Your task to perform on an android device: Add "bose soundlink mini" to the cart on ebay.com, then select checkout. Image 0: 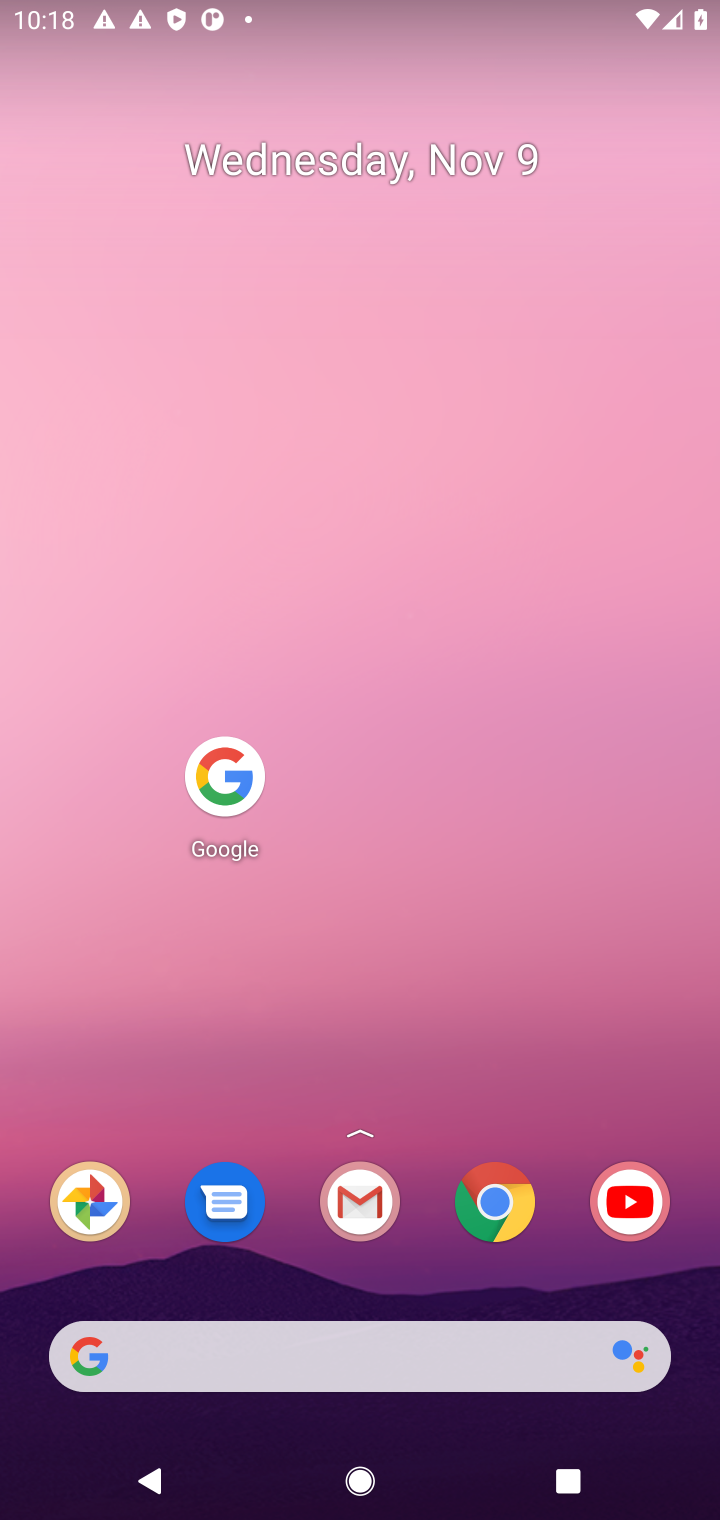
Step 0: press home button
Your task to perform on an android device: Add "bose soundlink mini" to the cart on ebay.com, then select checkout. Image 1: 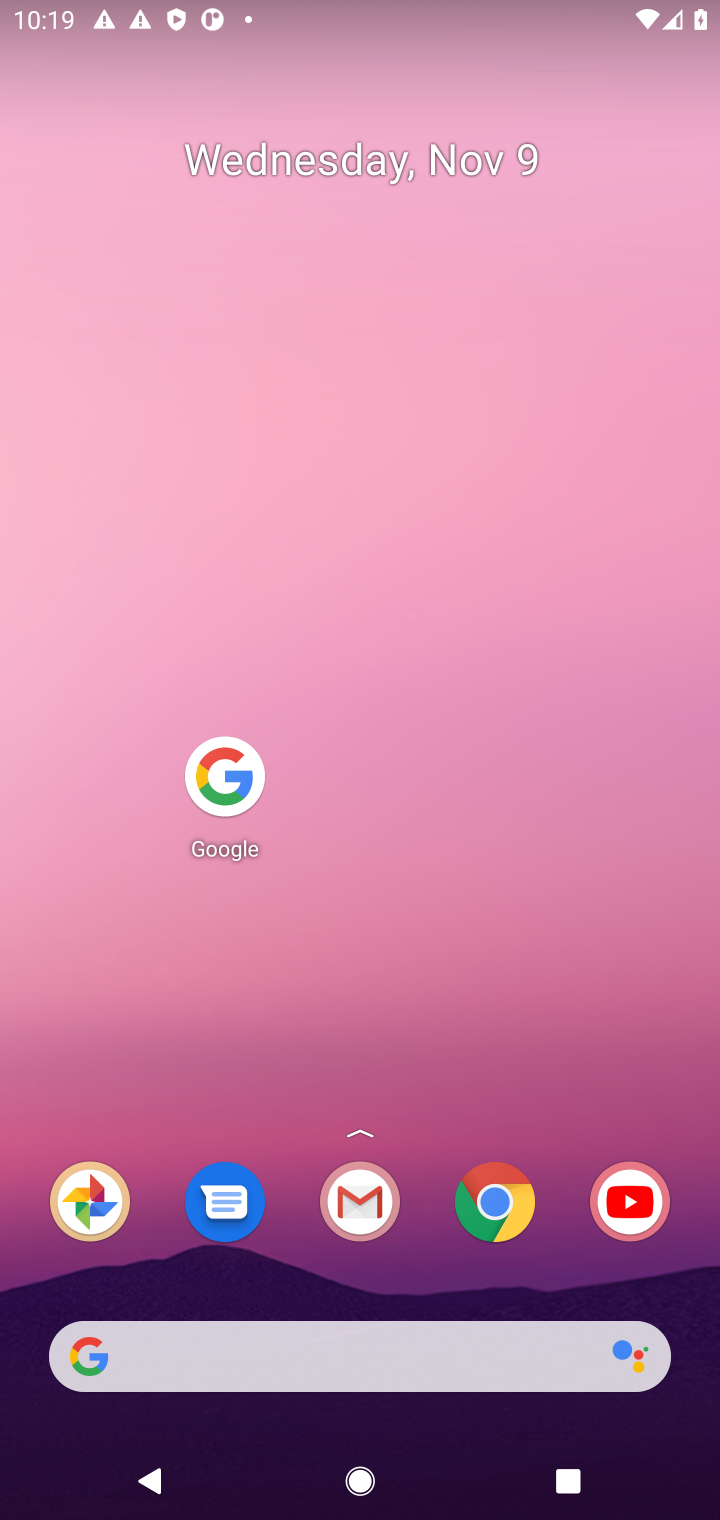
Step 1: click (232, 768)
Your task to perform on an android device: Add "bose soundlink mini" to the cart on ebay.com, then select checkout. Image 2: 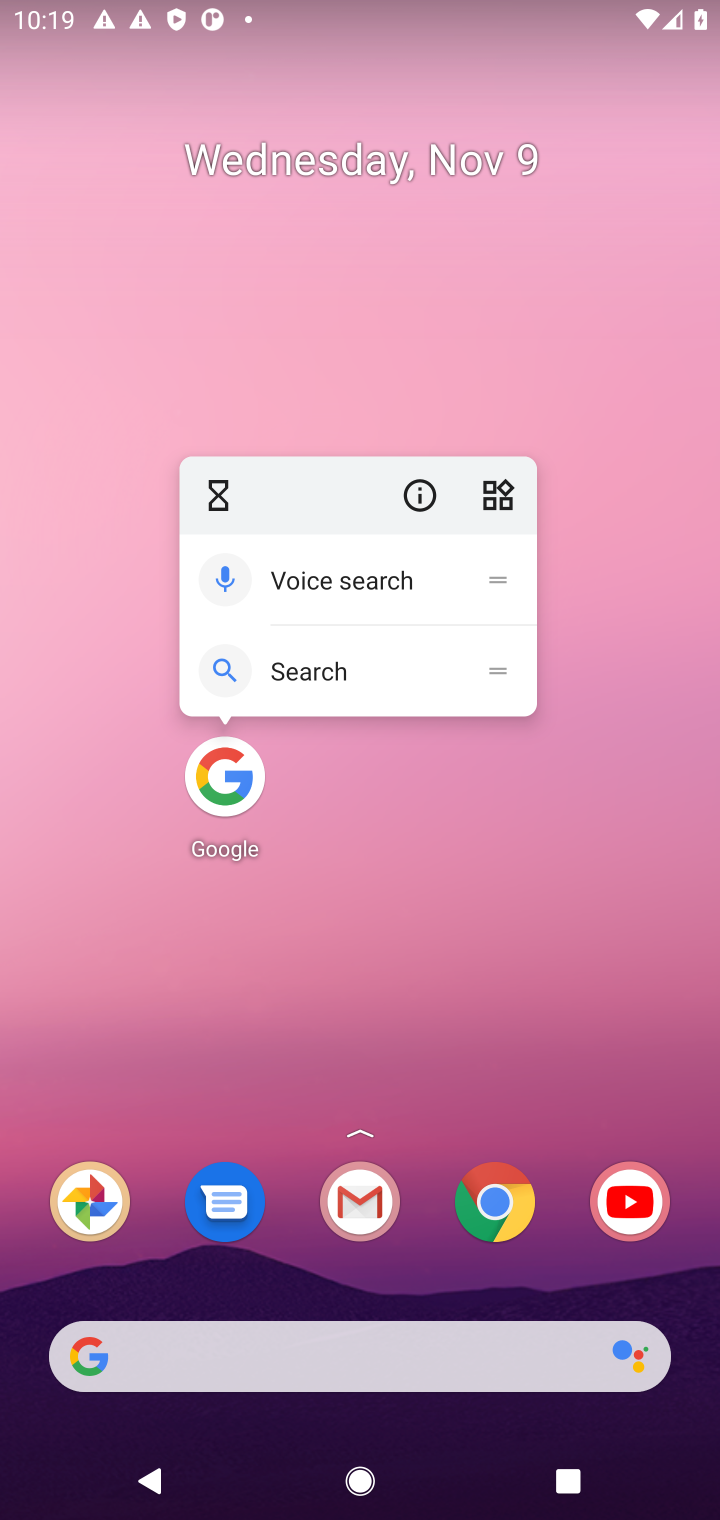
Step 2: click (234, 768)
Your task to perform on an android device: Add "bose soundlink mini" to the cart on ebay.com, then select checkout. Image 3: 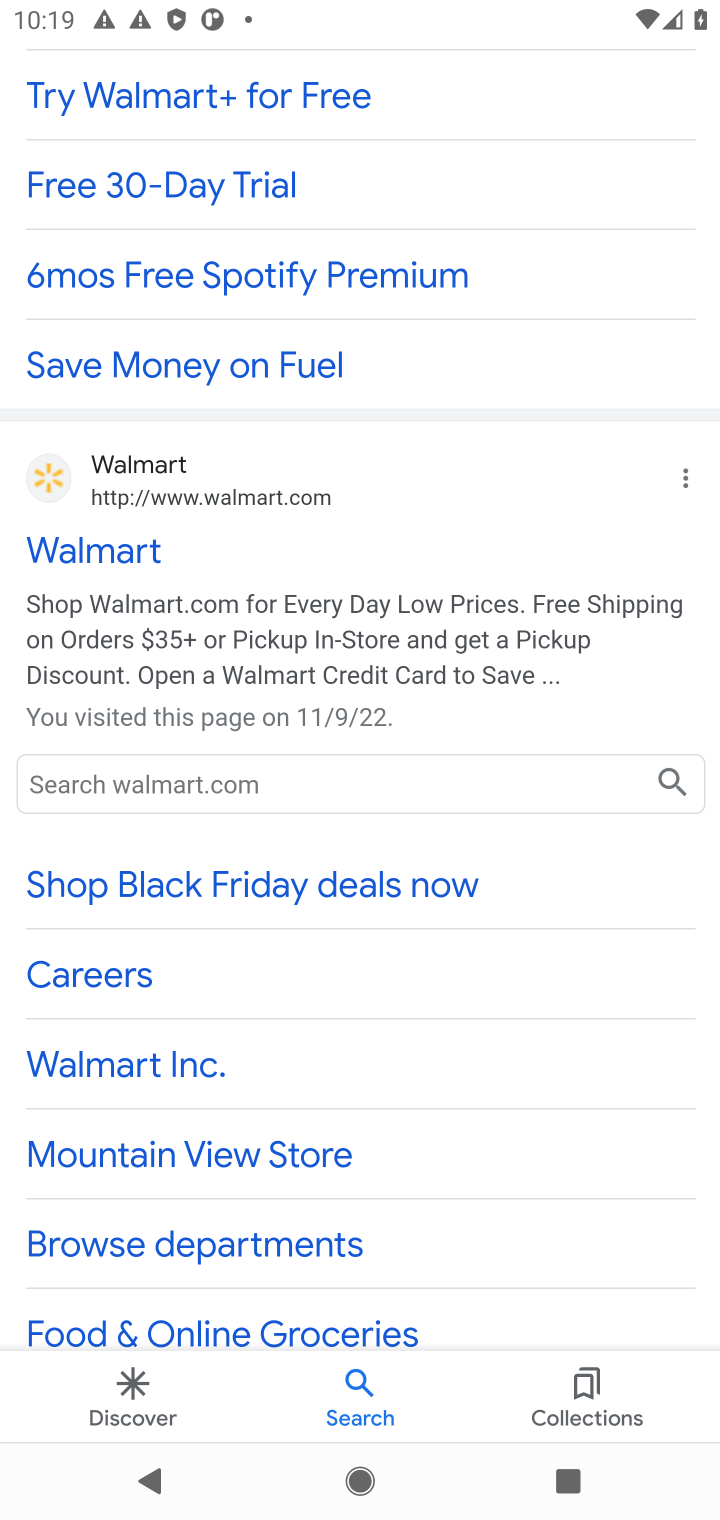
Step 3: drag from (504, 153) to (401, 1137)
Your task to perform on an android device: Add "bose soundlink mini" to the cart on ebay.com, then select checkout. Image 4: 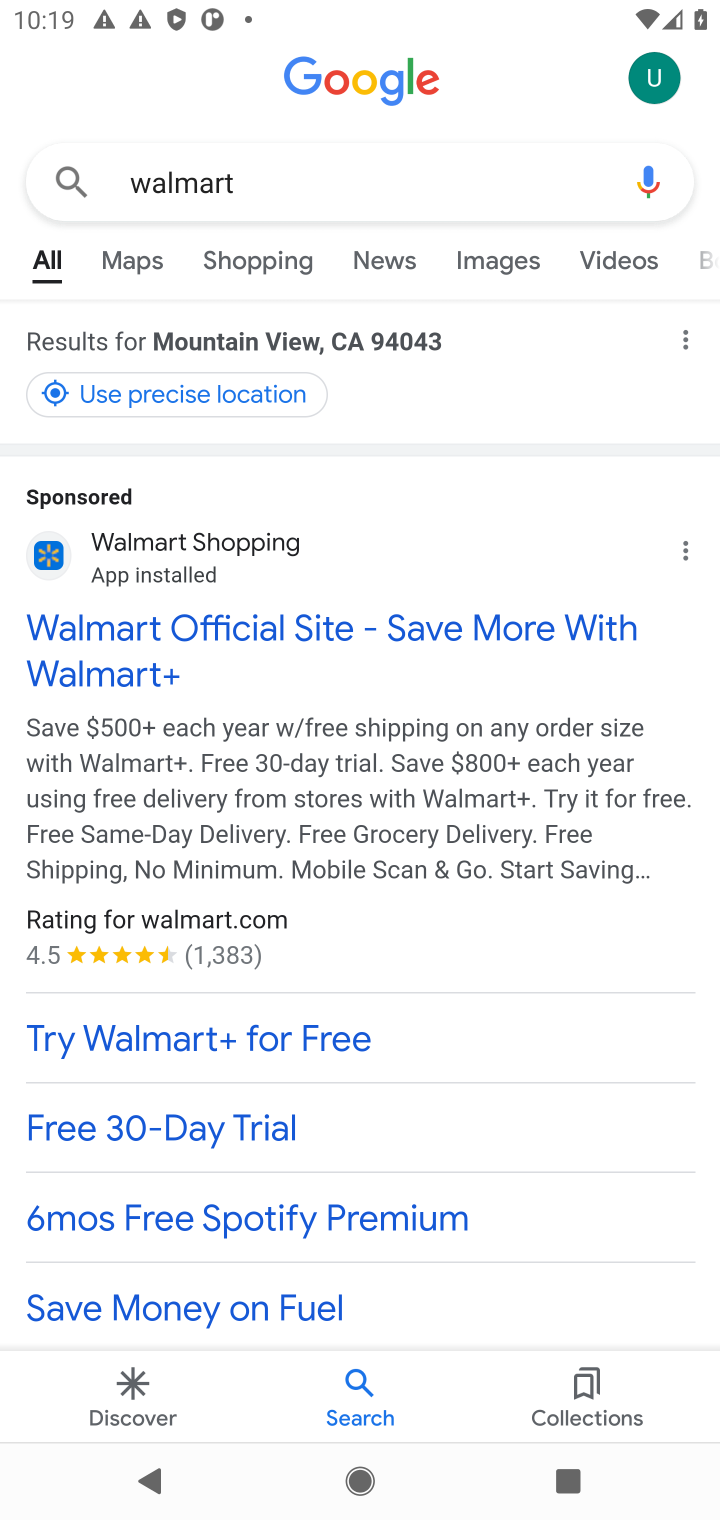
Step 4: click (310, 173)
Your task to perform on an android device: Add "bose soundlink mini" to the cart on ebay.com, then select checkout. Image 5: 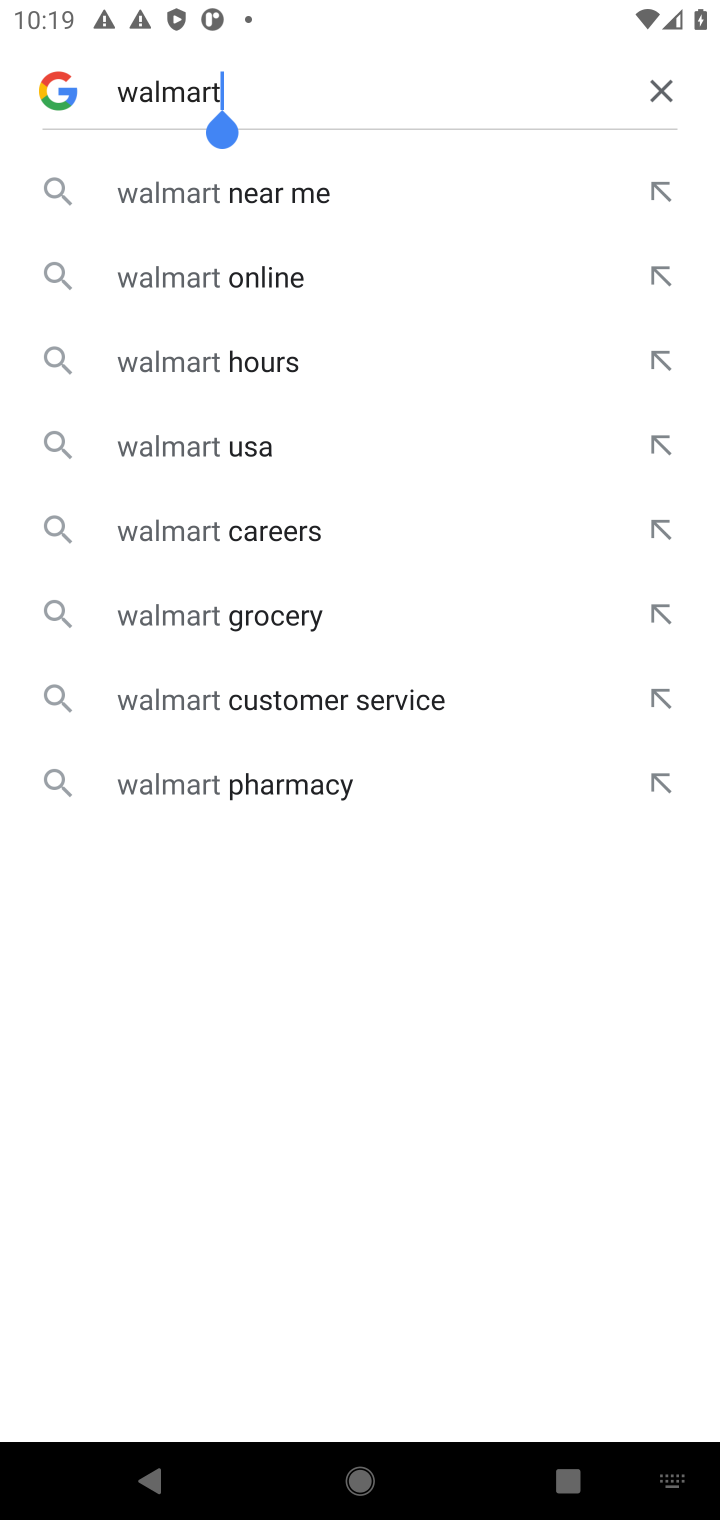
Step 5: click (654, 84)
Your task to perform on an android device: Add "bose soundlink mini" to the cart on ebay.com, then select checkout. Image 6: 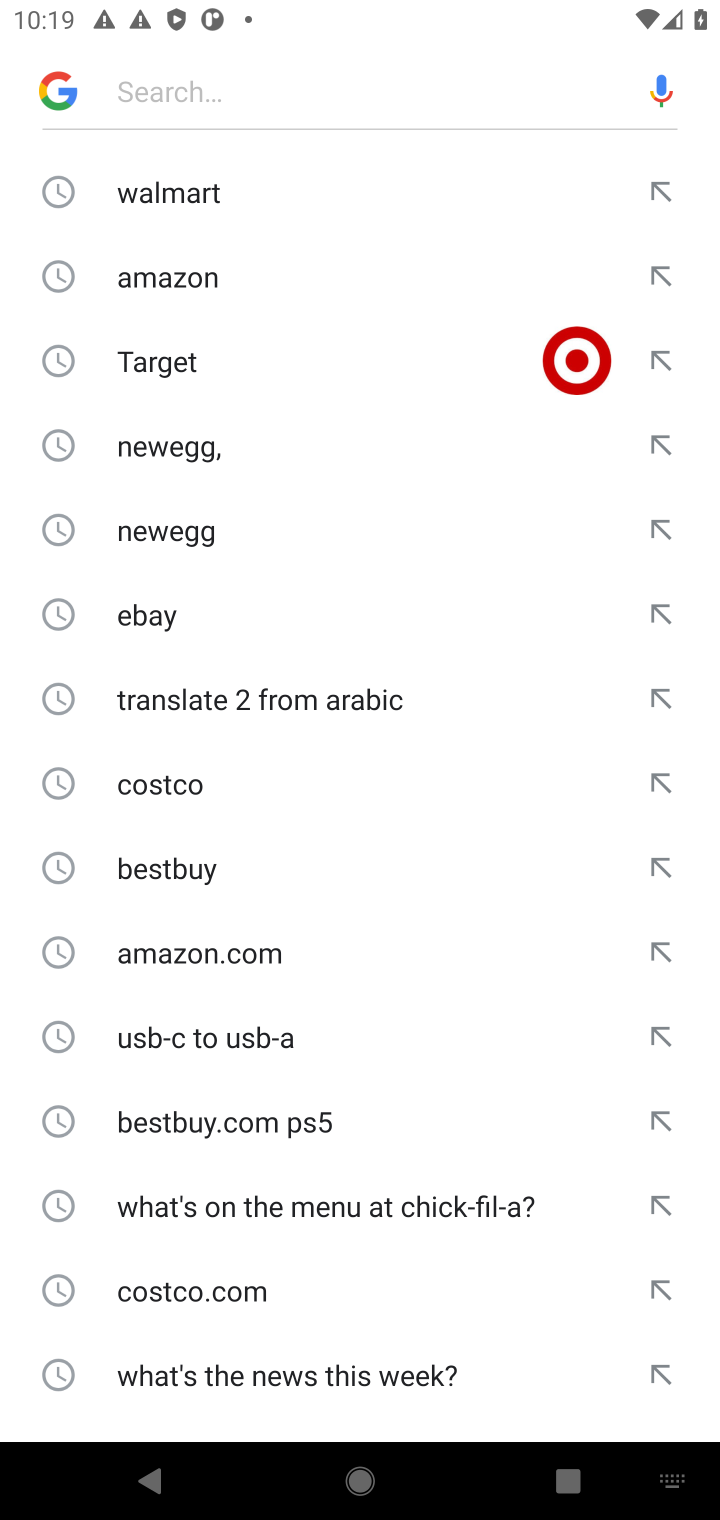
Step 6: click (149, 609)
Your task to perform on an android device: Add "bose soundlink mini" to the cart on ebay.com, then select checkout. Image 7: 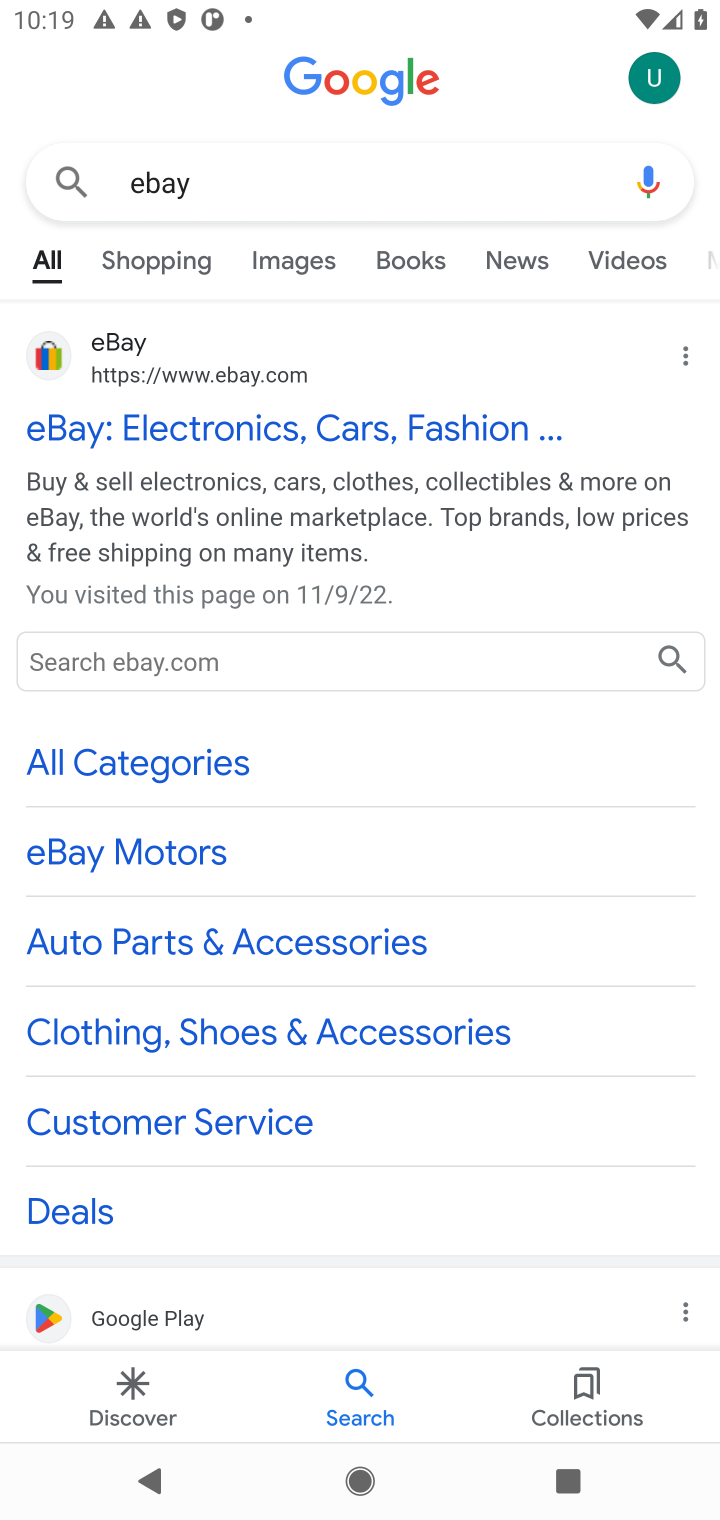
Step 7: click (287, 423)
Your task to perform on an android device: Add "bose soundlink mini" to the cart on ebay.com, then select checkout. Image 8: 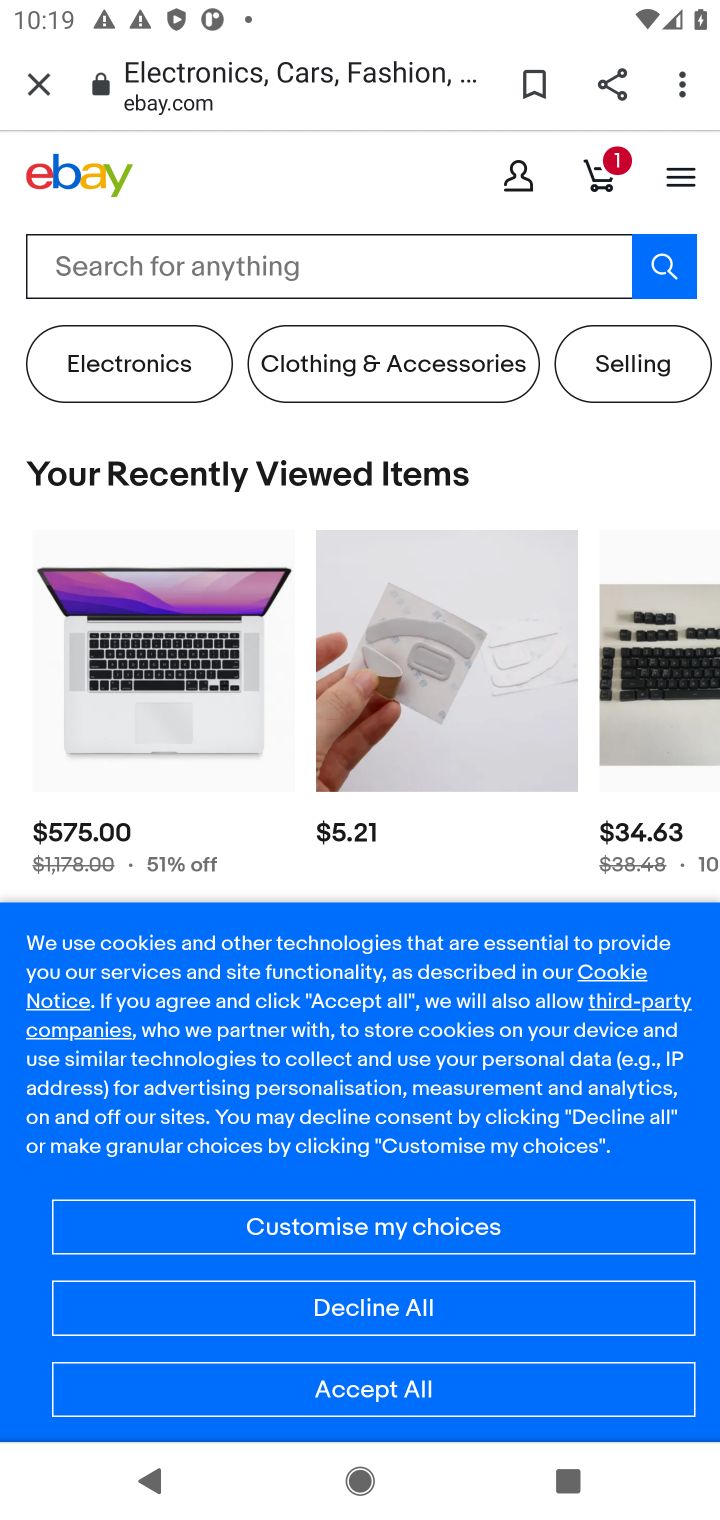
Step 8: click (334, 250)
Your task to perform on an android device: Add "bose soundlink mini" to the cart on ebay.com, then select checkout. Image 9: 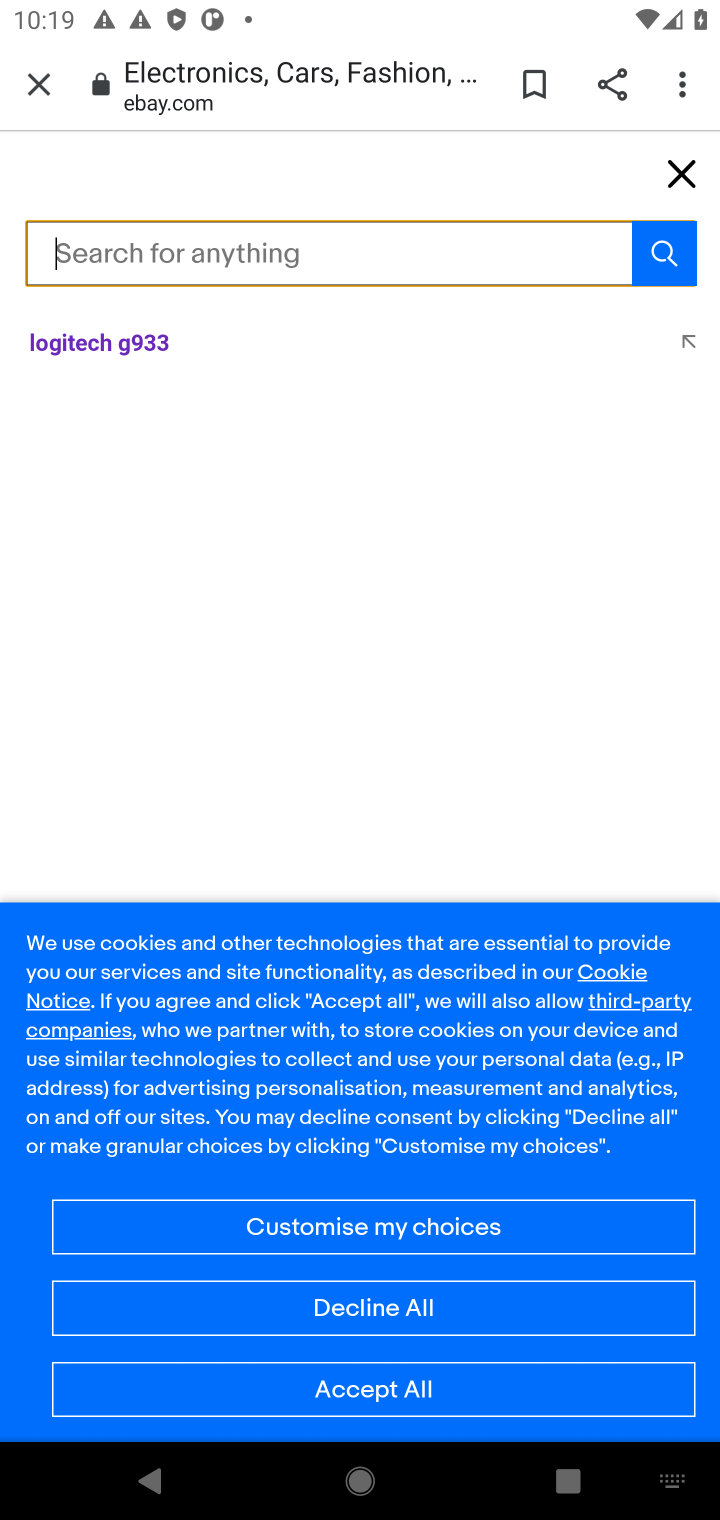
Step 9: type "bose soundlink mini"
Your task to perform on an android device: Add "bose soundlink mini" to the cart on ebay.com, then select checkout. Image 10: 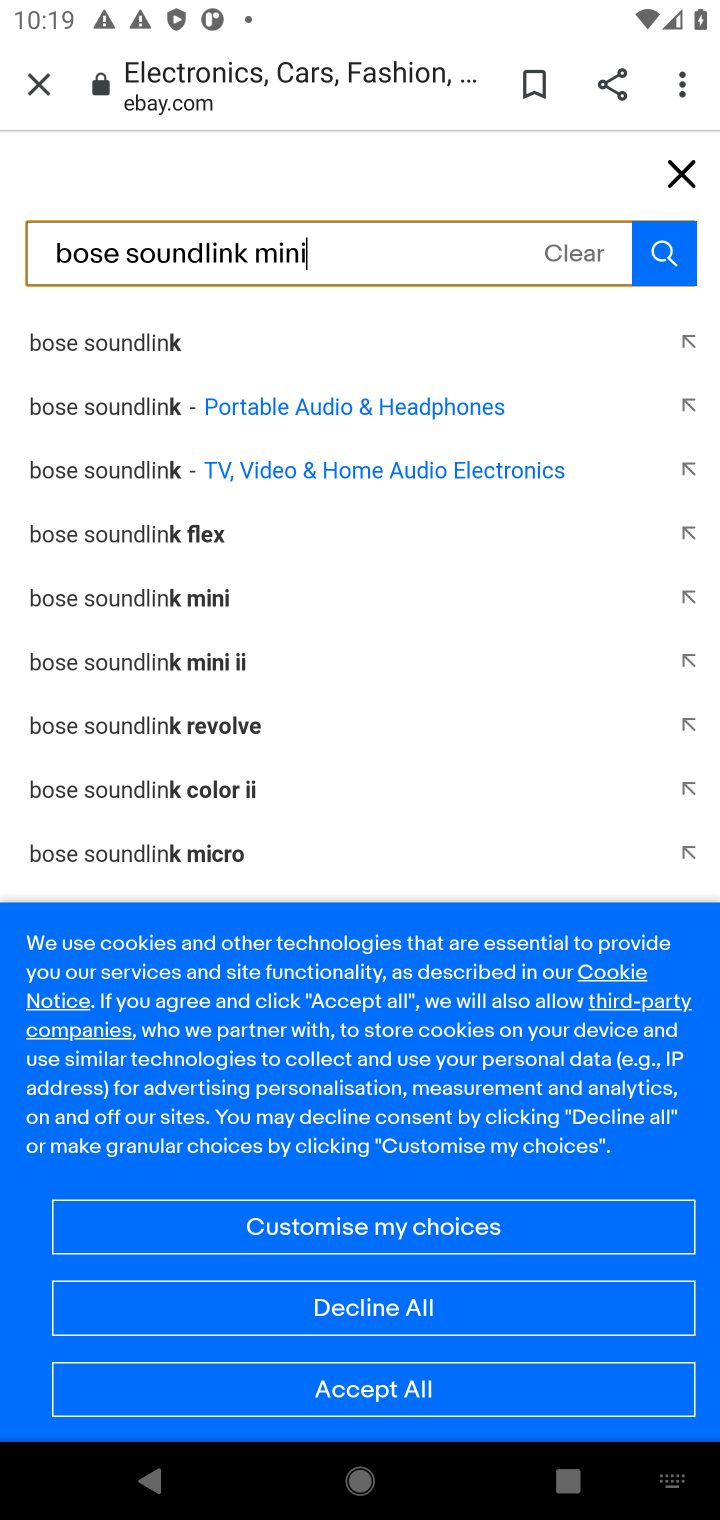
Step 10: press enter
Your task to perform on an android device: Add "bose soundlink mini" to the cart on ebay.com, then select checkout. Image 11: 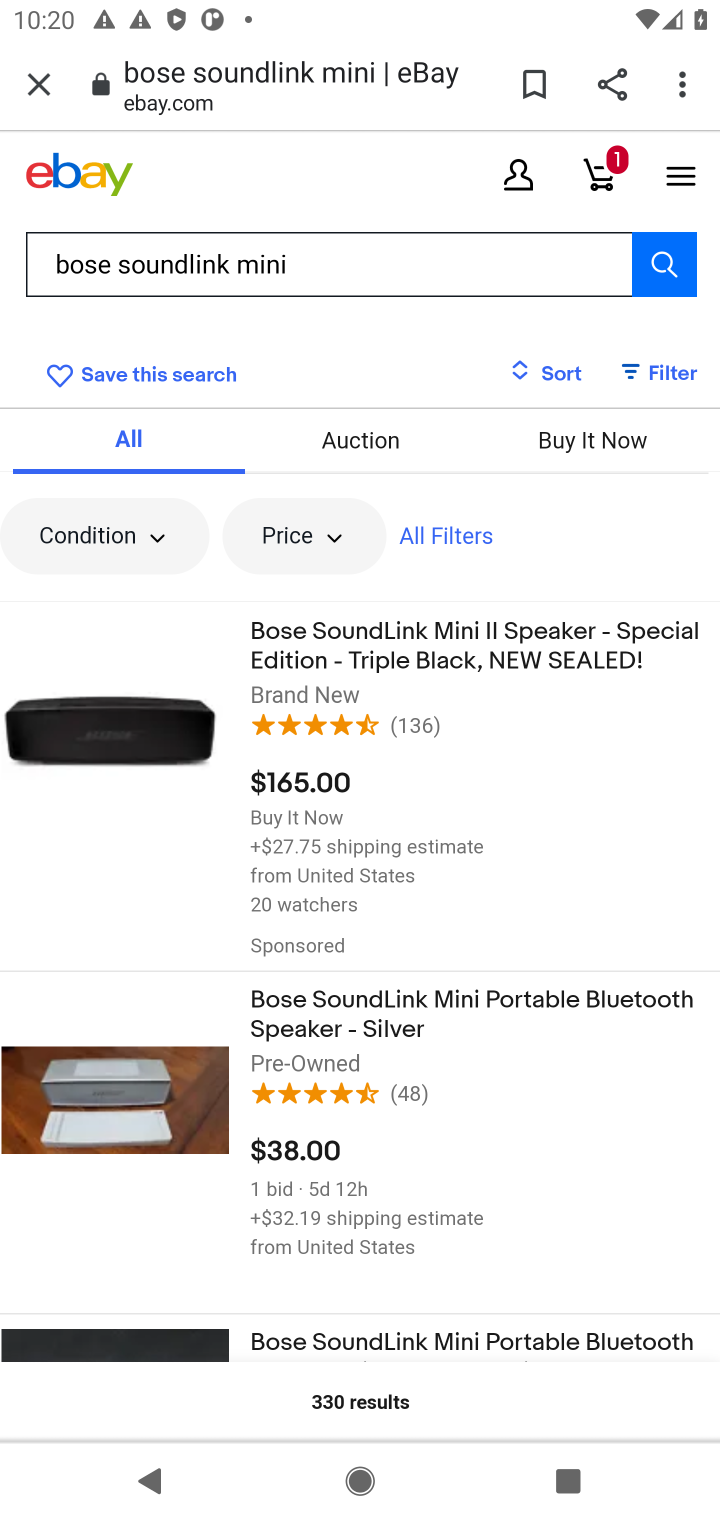
Step 11: click (480, 720)
Your task to perform on an android device: Add "bose soundlink mini" to the cart on ebay.com, then select checkout. Image 12: 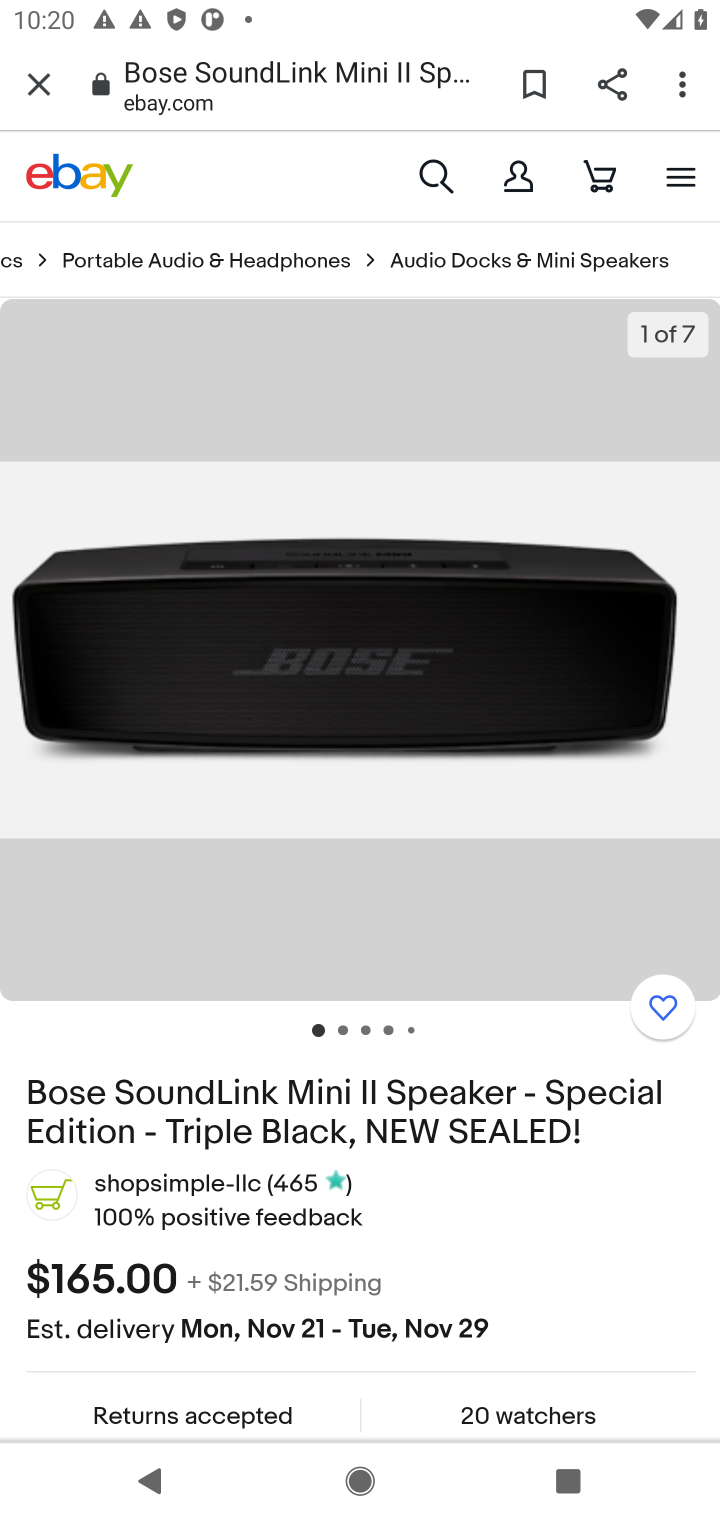
Step 12: drag from (431, 1363) to (625, 378)
Your task to perform on an android device: Add "bose soundlink mini" to the cart on ebay.com, then select checkout. Image 13: 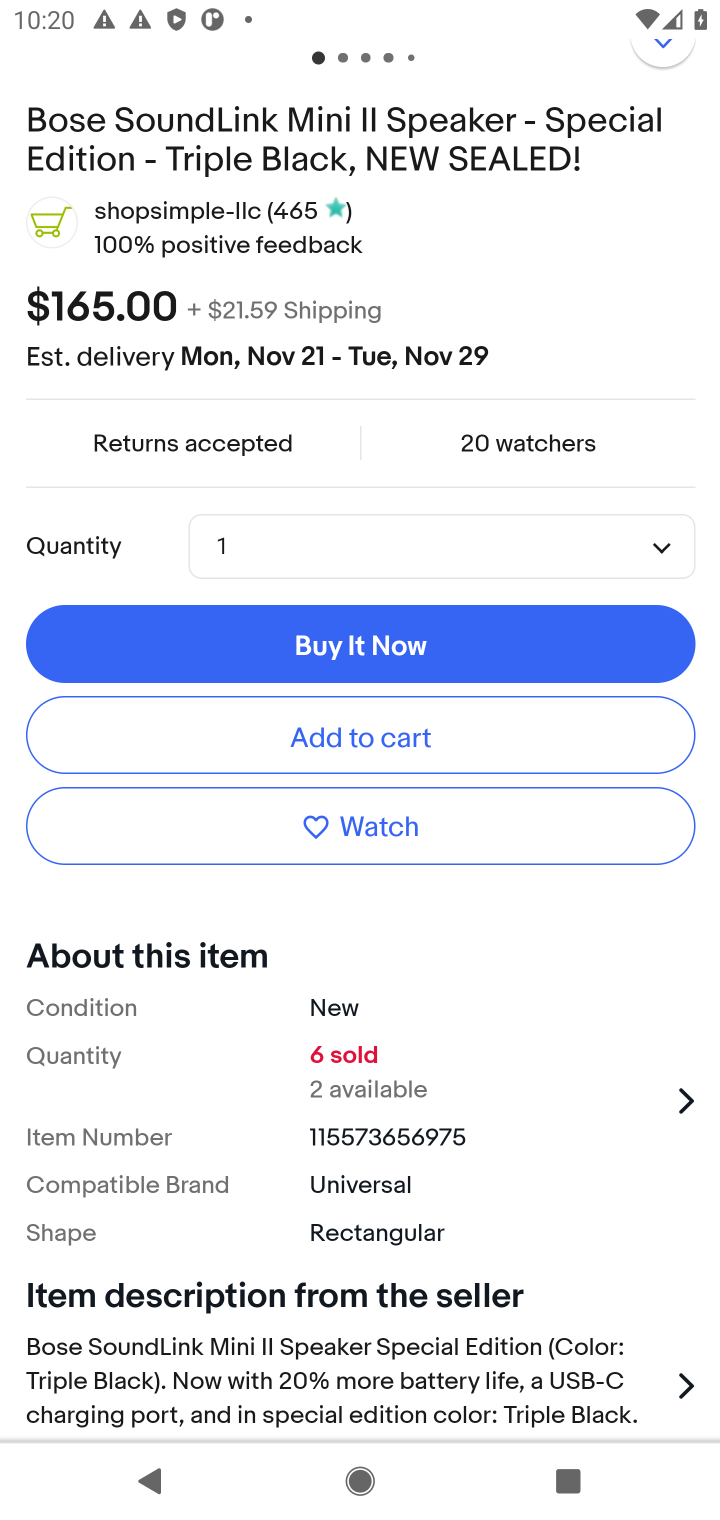
Step 13: click (340, 737)
Your task to perform on an android device: Add "bose soundlink mini" to the cart on ebay.com, then select checkout. Image 14: 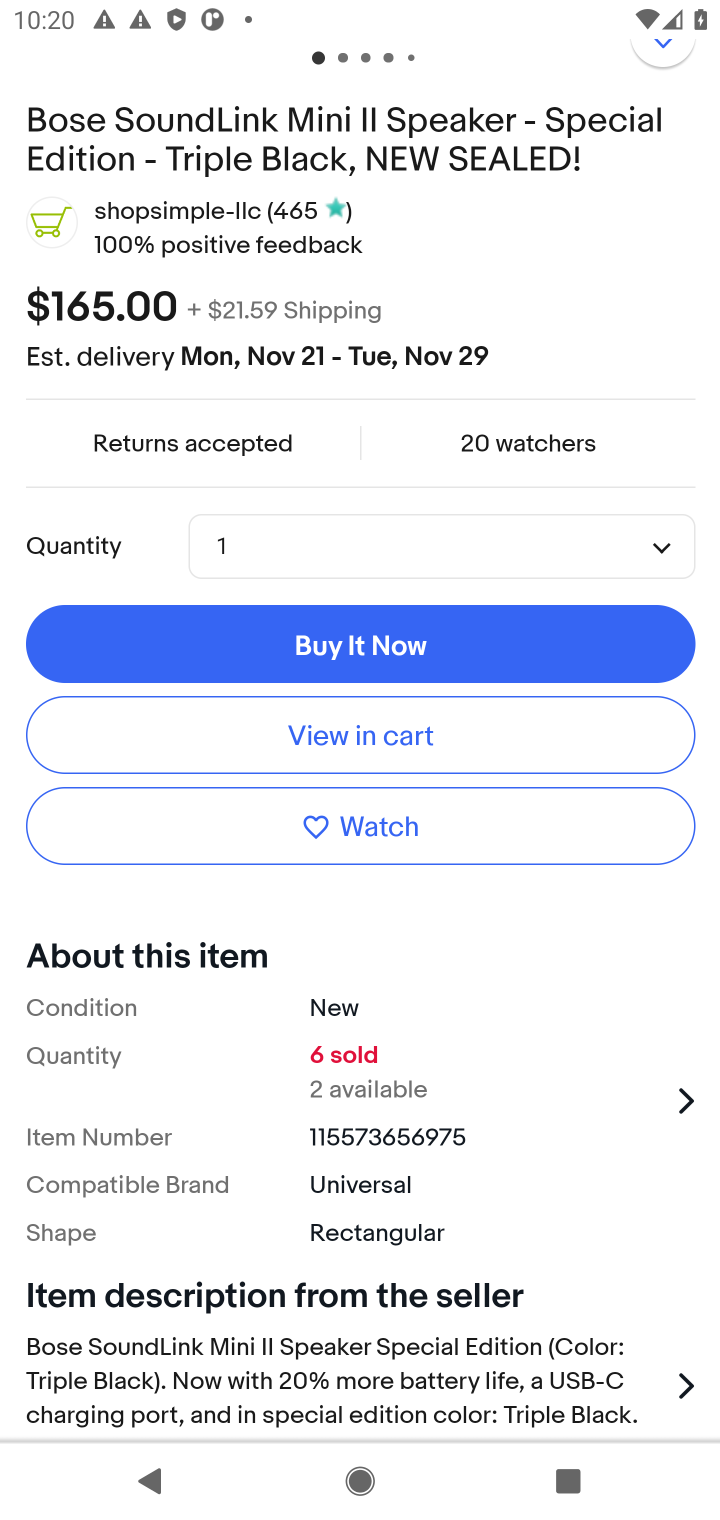
Step 14: click (340, 737)
Your task to perform on an android device: Add "bose soundlink mini" to the cart on ebay.com, then select checkout. Image 15: 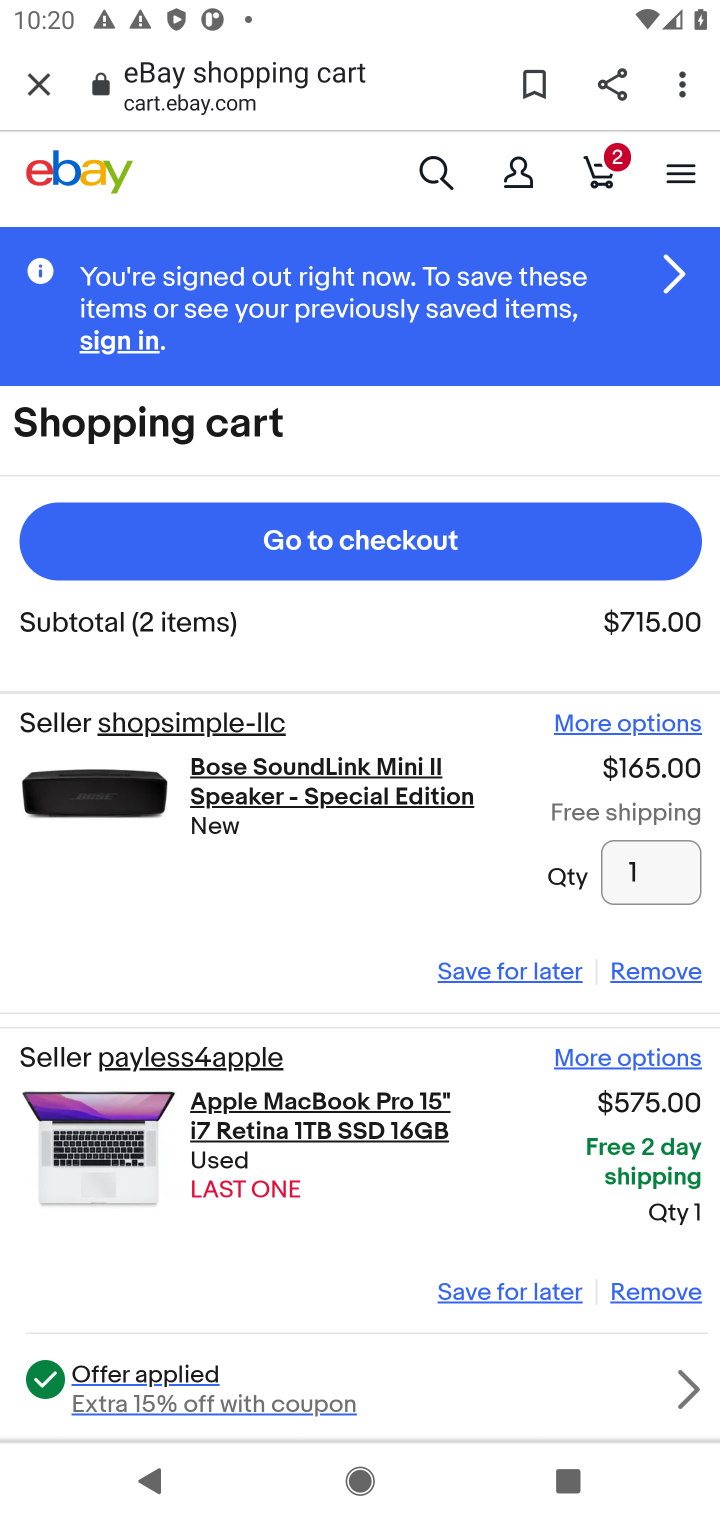
Step 15: click (666, 1293)
Your task to perform on an android device: Add "bose soundlink mini" to the cart on ebay.com, then select checkout. Image 16: 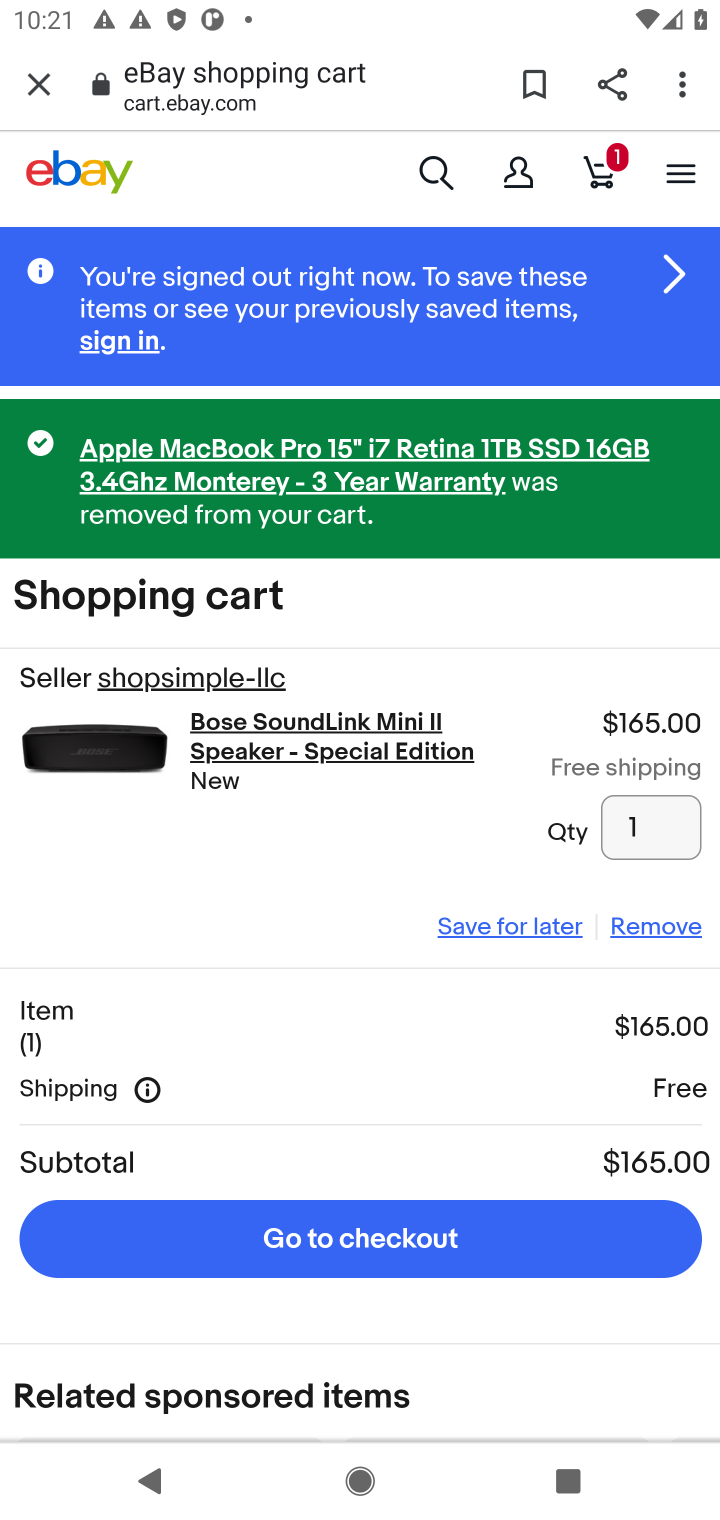
Step 16: click (388, 1234)
Your task to perform on an android device: Add "bose soundlink mini" to the cart on ebay.com, then select checkout. Image 17: 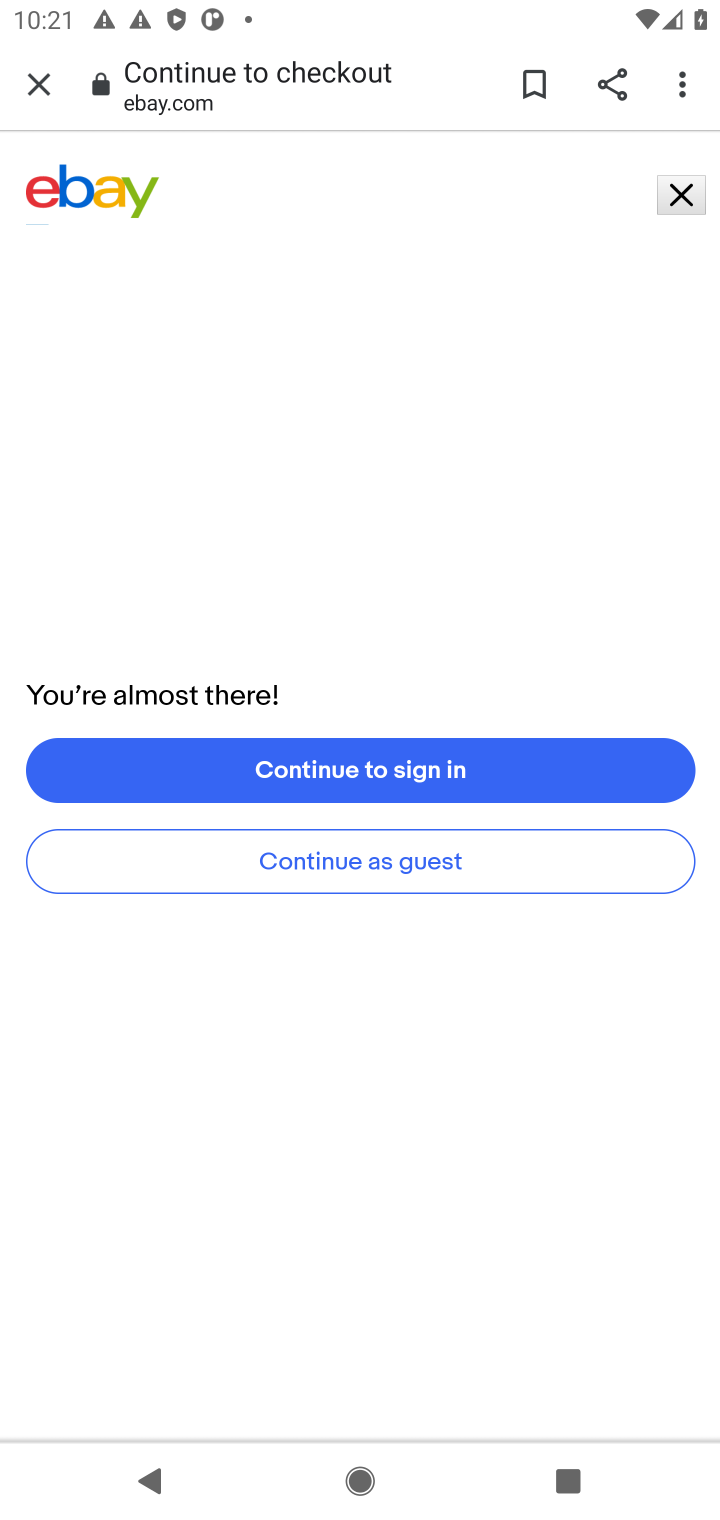
Step 17: task complete